Your task to perform on an android device: turn off data saver in the chrome app Image 0: 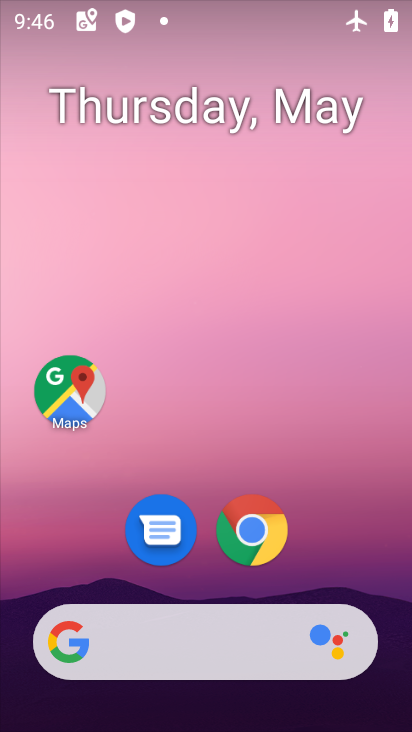
Step 0: click (259, 537)
Your task to perform on an android device: turn off data saver in the chrome app Image 1: 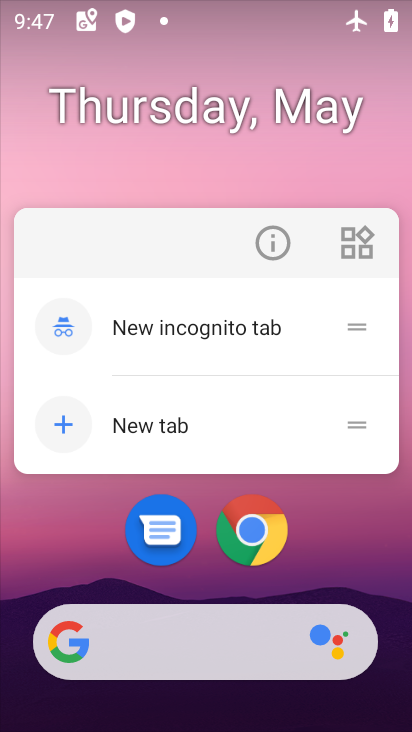
Step 1: click (233, 535)
Your task to perform on an android device: turn off data saver in the chrome app Image 2: 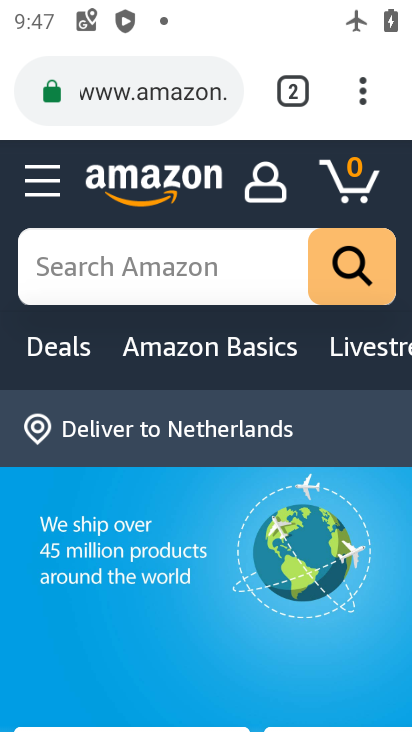
Step 2: click (359, 86)
Your task to perform on an android device: turn off data saver in the chrome app Image 3: 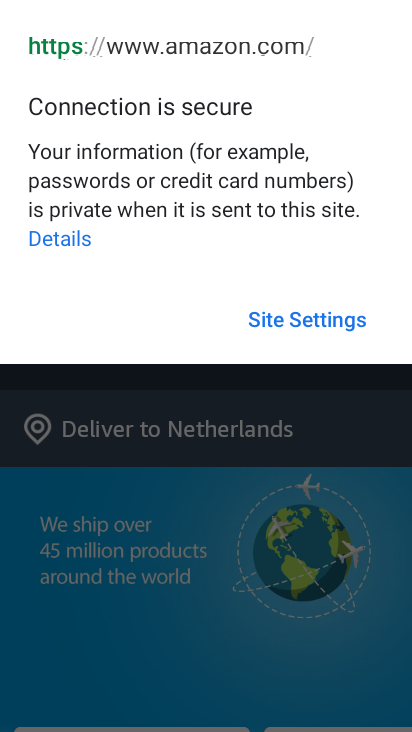
Step 3: click (230, 396)
Your task to perform on an android device: turn off data saver in the chrome app Image 4: 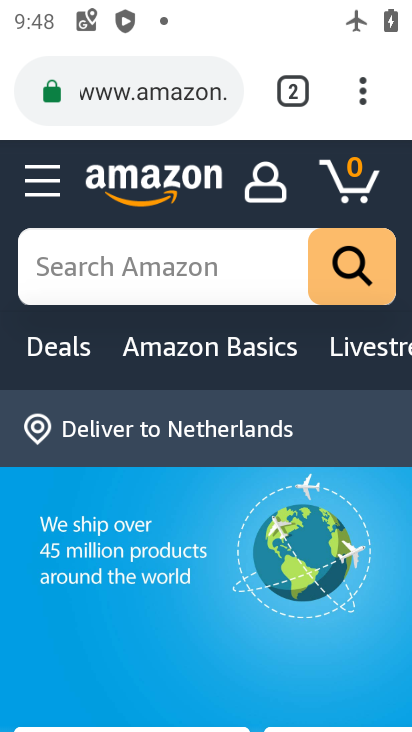
Step 4: click (350, 95)
Your task to perform on an android device: turn off data saver in the chrome app Image 5: 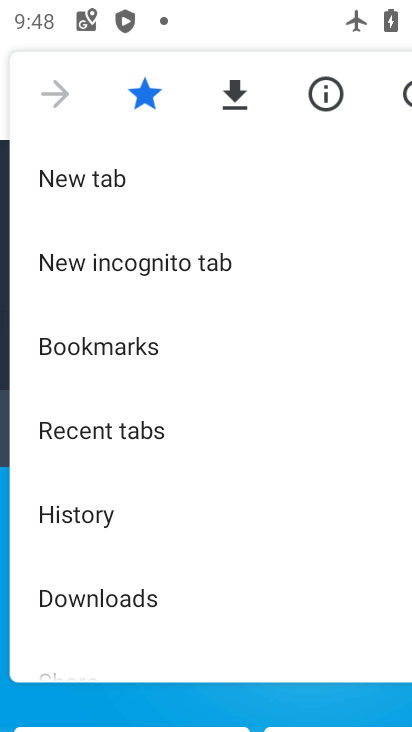
Step 5: drag from (256, 591) to (278, 70)
Your task to perform on an android device: turn off data saver in the chrome app Image 6: 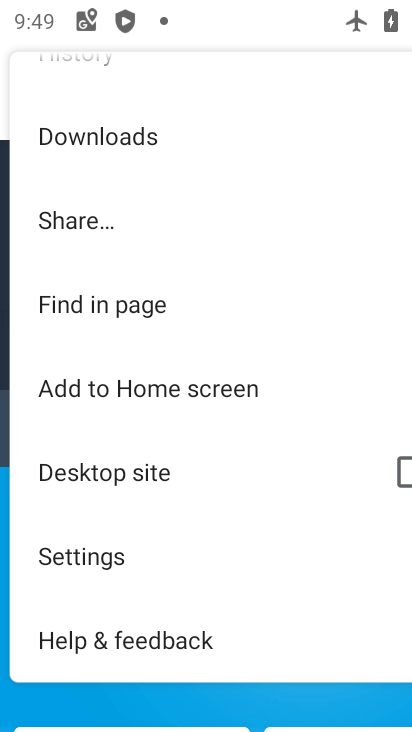
Step 6: click (113, 556)
Your task to perform on an android device: turn off data saver in the chrome app Image 7: 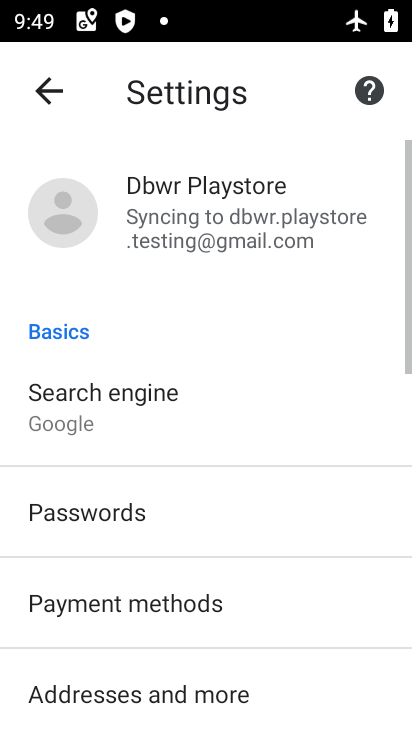
Step 7: drag from (253, 602) to (293, 204)
Your task to perform on an android device: turn off data saver in the chrome app Image 8: 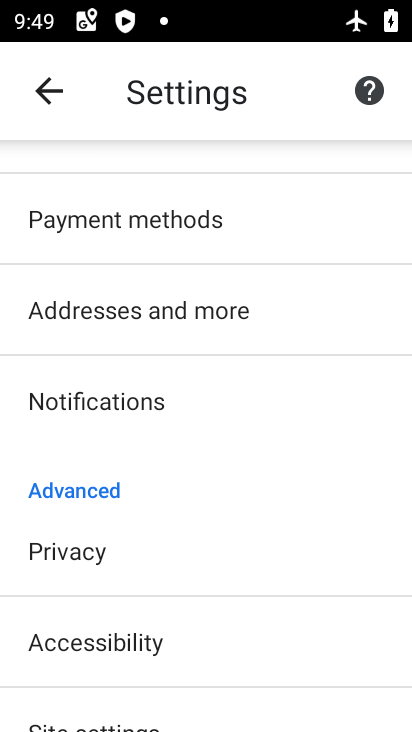
Step 8: drag from (151, 670) to (240, 142)
Your task to perform on an android device: turn off data saver in the chrome app Image 9: 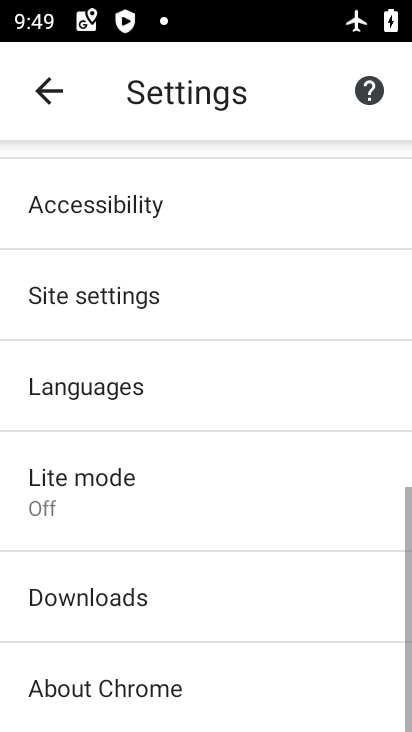
Step 9: click (62, 490)
Your task to perform on an android device: turn off data saver in the chrome app Image 10: 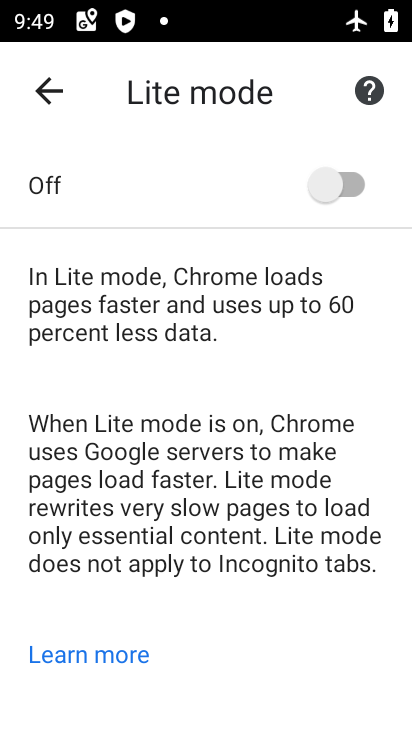
Step 10: task complete